Your task to perform on an android device: Go to battery settings Image 0: 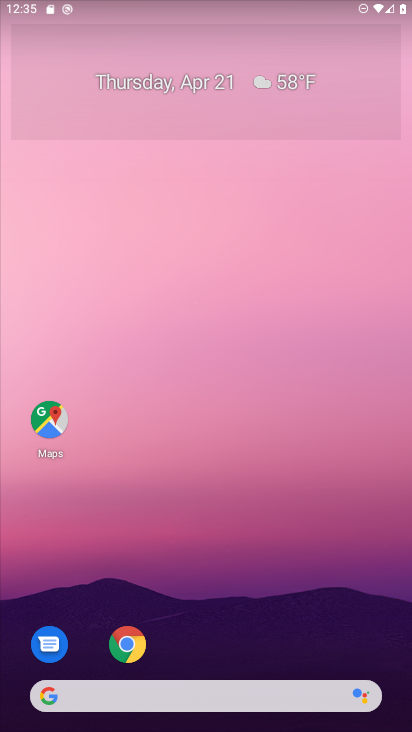
Step 0: drag from (183, 665) to (193, 170)
Your task to perform on an android device: Go to battery settings Image 1: 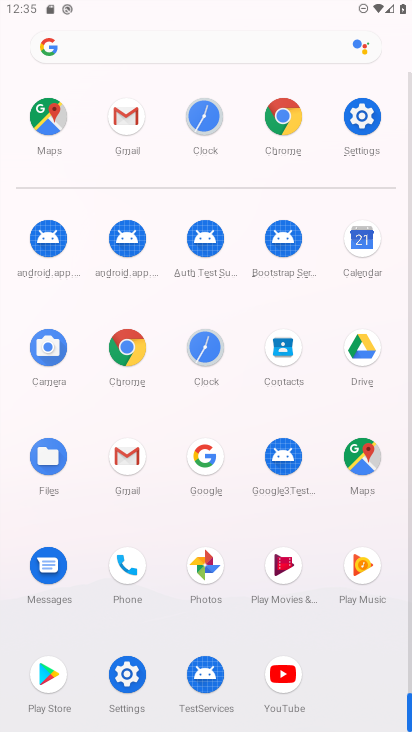
Step 1: click (363, 114)
Your task to perform on an android device: Go to battery settings Image 2: 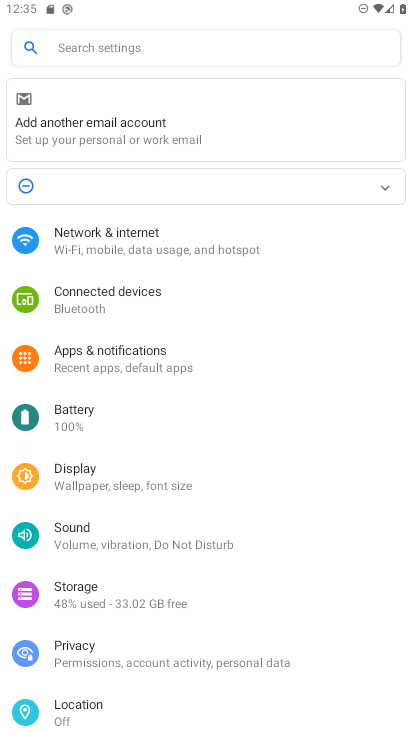
Step 2: click (82, 421)
Your task to perform on an android device: Go to battery settings Image 3: 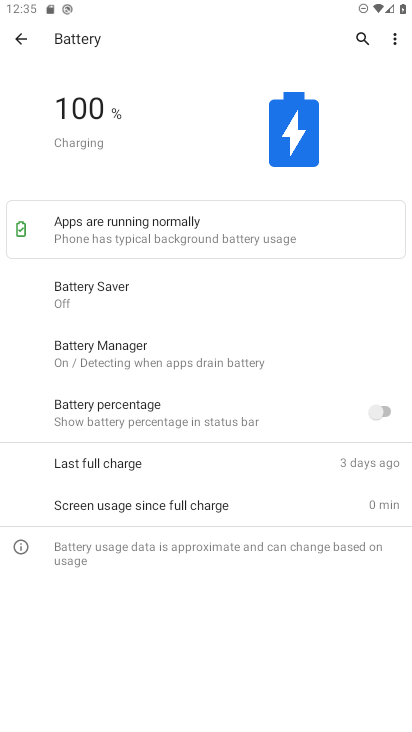
Step 3: task complete